Your task to perform on an android device: Go to Amazon Image 0: 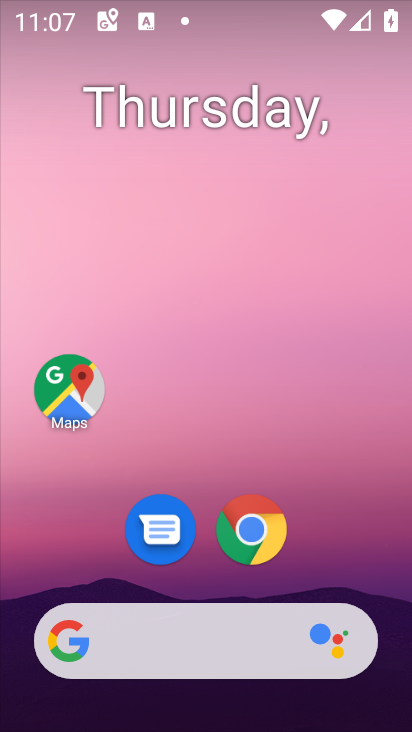
Step 0: drag from (193, 611) to (218, 141)
Your task to perform on an android device: Go to Amazon Image 1: 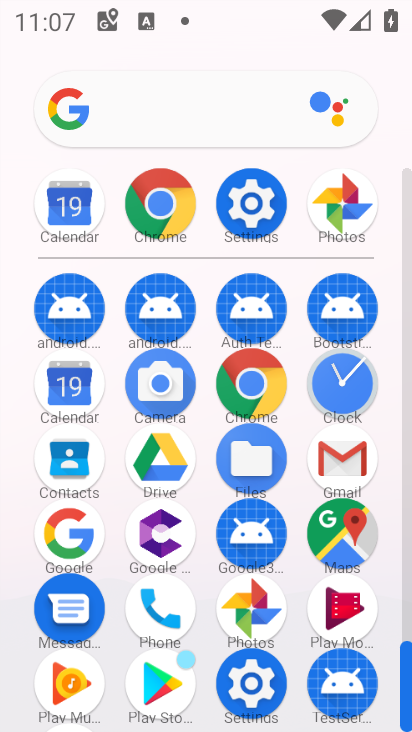
Step 1: click (163, 231)
Your task to perform on an android device: Go to Amazon Image 2: 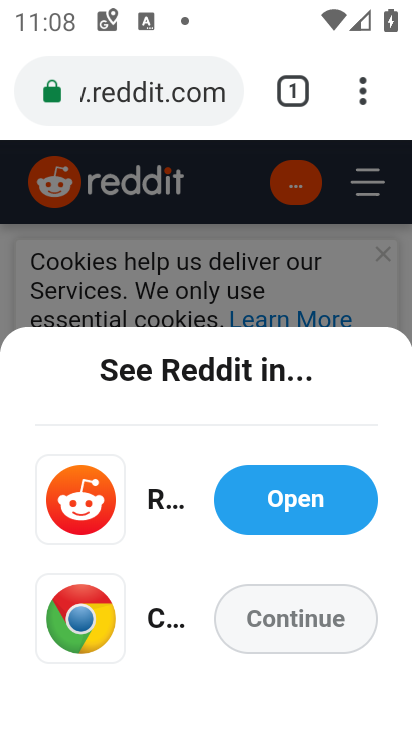
Step 2: click (210, 99)
Your task to perform on an android device: Go to Amazon Image 3: 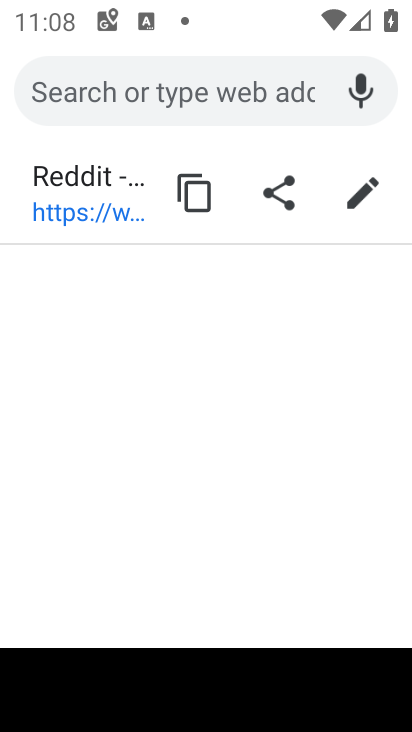
Step 3: type "amazon"
Your task to perform on an android device: Go to Amazon Image 4: 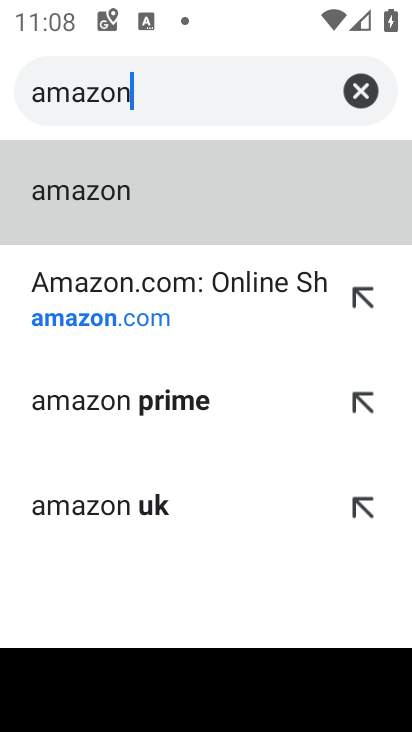
Step 4: click (153, 308)
Your task to perform on an android device: Go to Amazon Image 5: 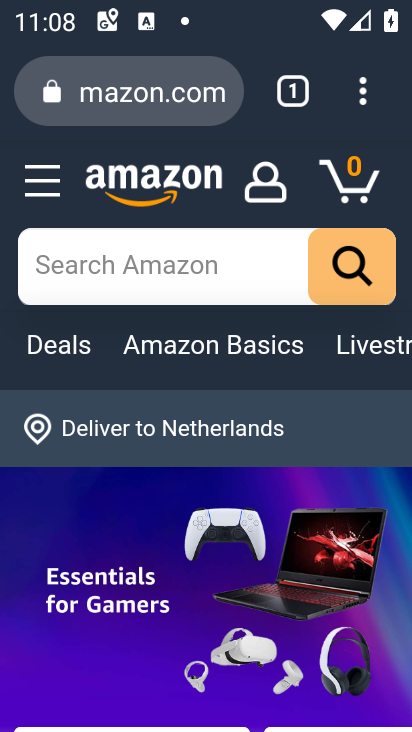
Step 5: task complete